Your task to perform on an android device: When is my next appointment? Image 0: 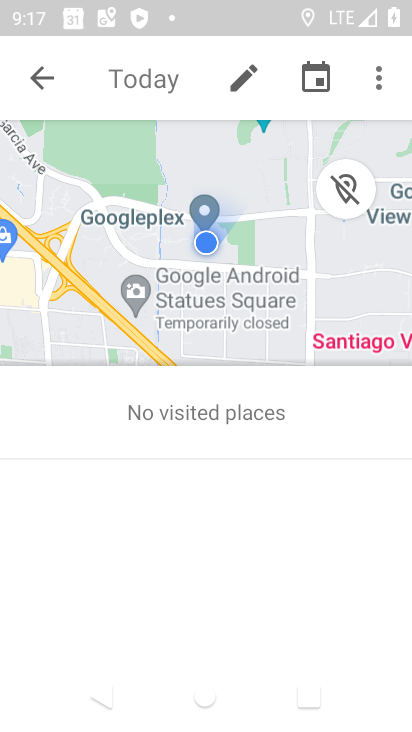
Step 0: press home button
Your task to perform on an android device: When is my next appointment? Image 1: 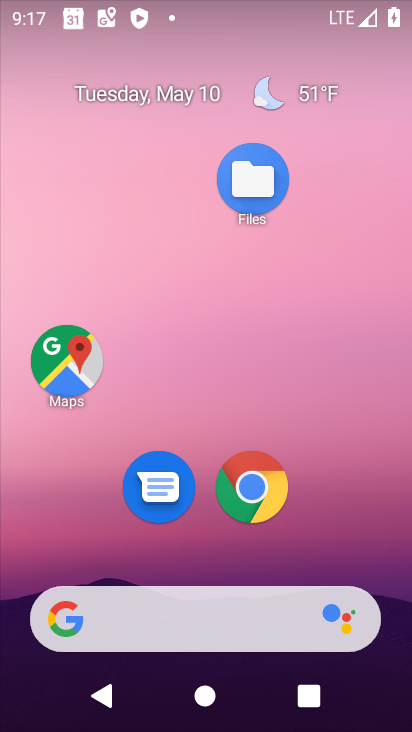
Step 1: drag from (213, 552) to (183, 0)
Your task to perform on an android device: When is my next appointment? Image 2: 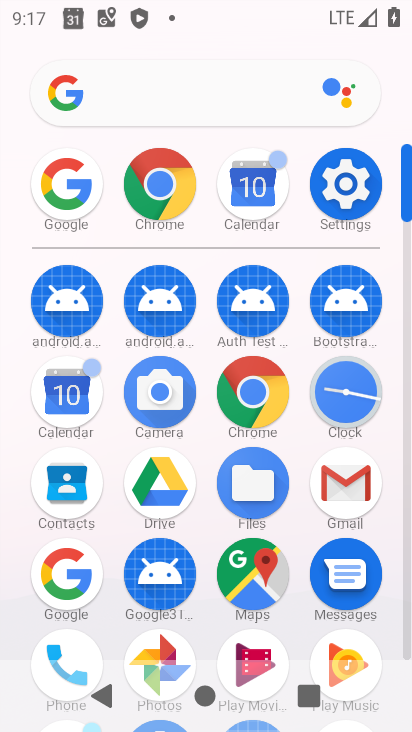
Step 2: click (64, 395)
Your task to perform on an android device: When is my next appointment? Image 3: 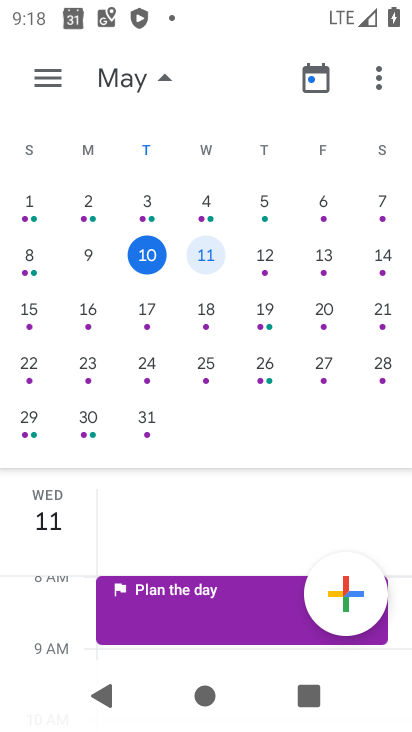
Step 3: click (266, 248)
Your task to perform on an android device: When is my next appointment? Image 4: 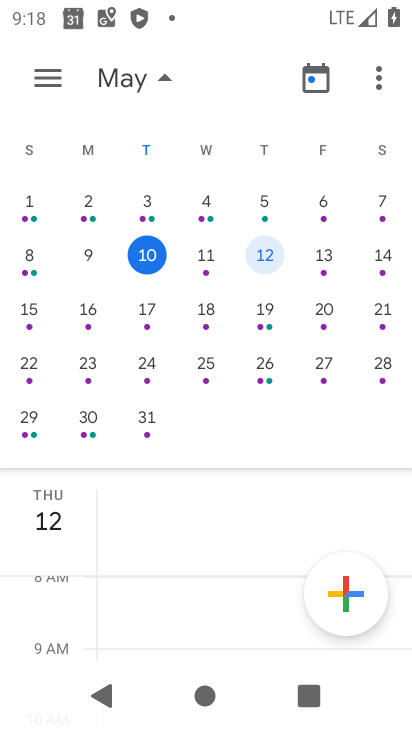
Step 4: task complete